Your task to perform on an android device: Do I have any events today? Image 0: 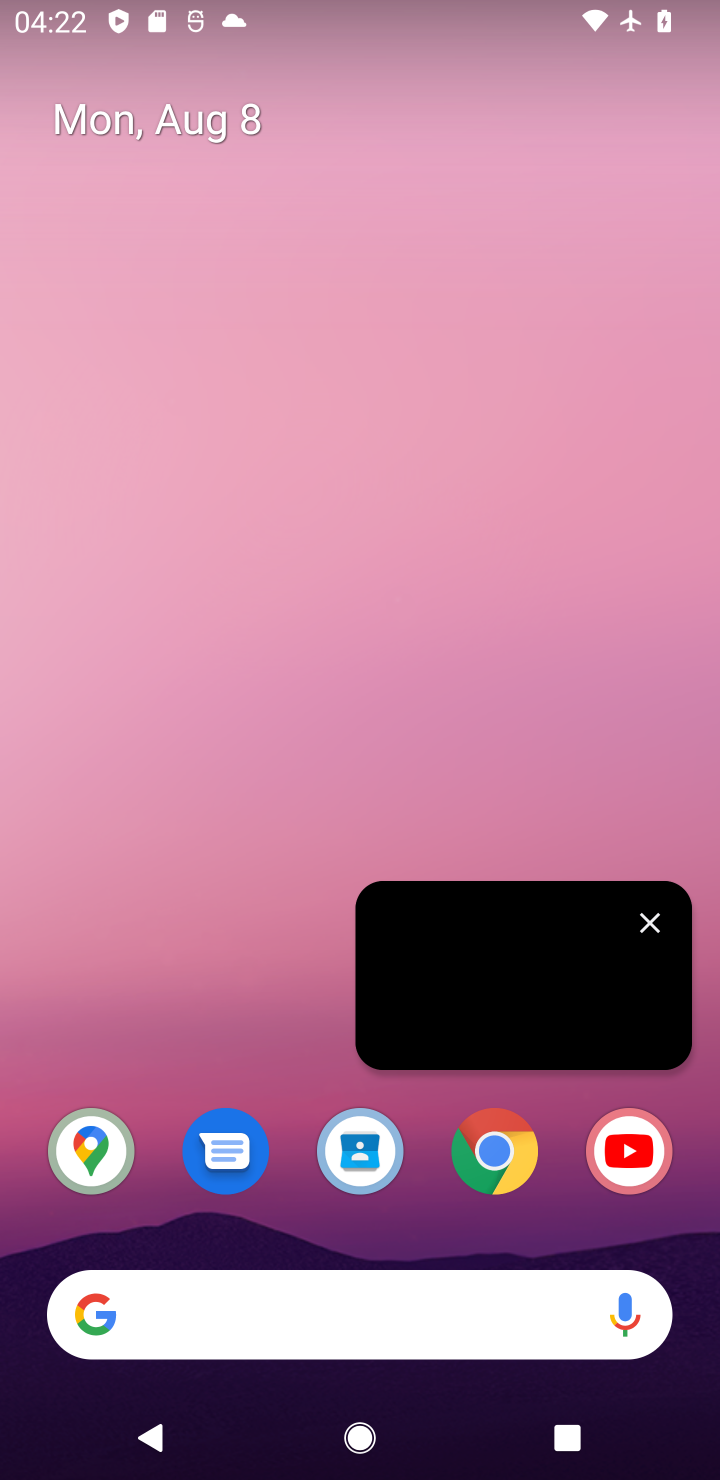
Step 0: click (658, 925)
Your task to perform on an android device: Do I have any events today? Image 1: 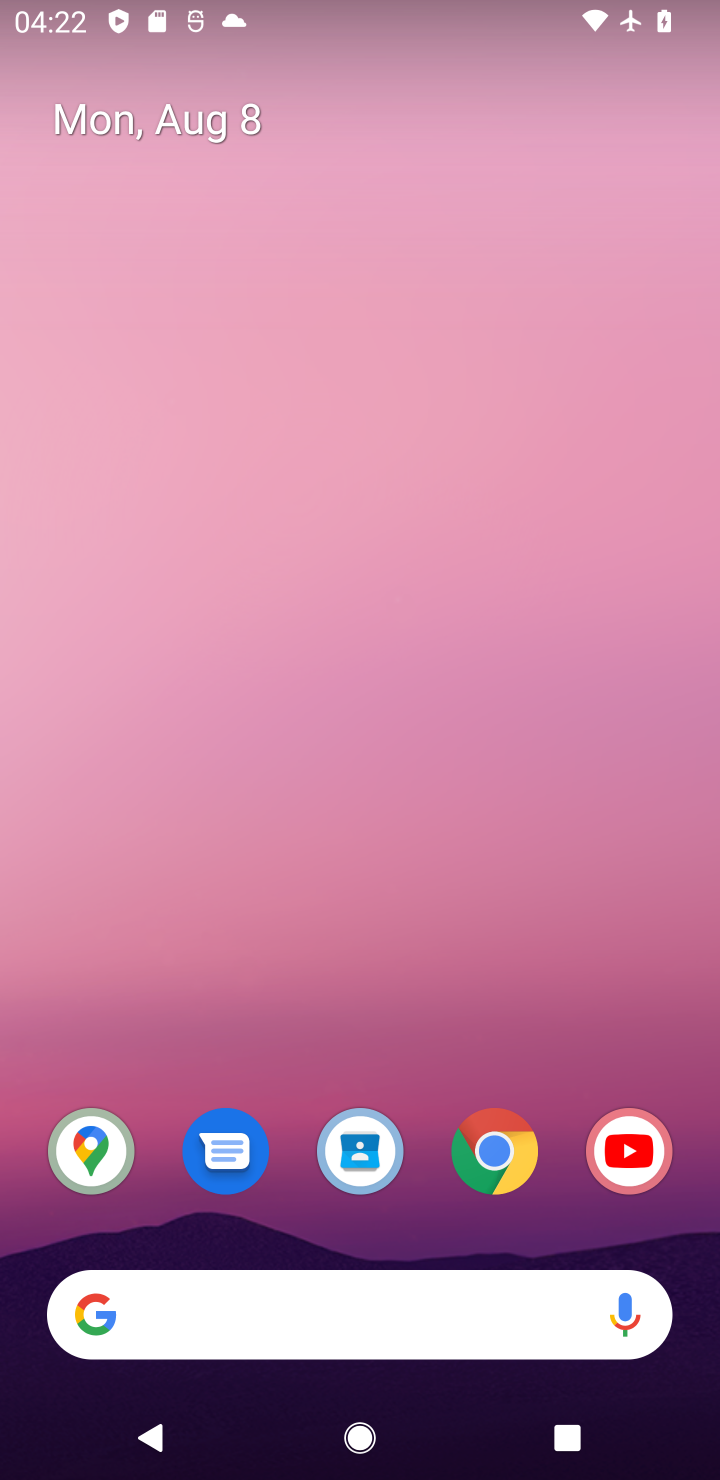
Step 1: drag from (342, 946) to (266, 228)
Your task to perform on an android device: Do I have any events today? Image 2: 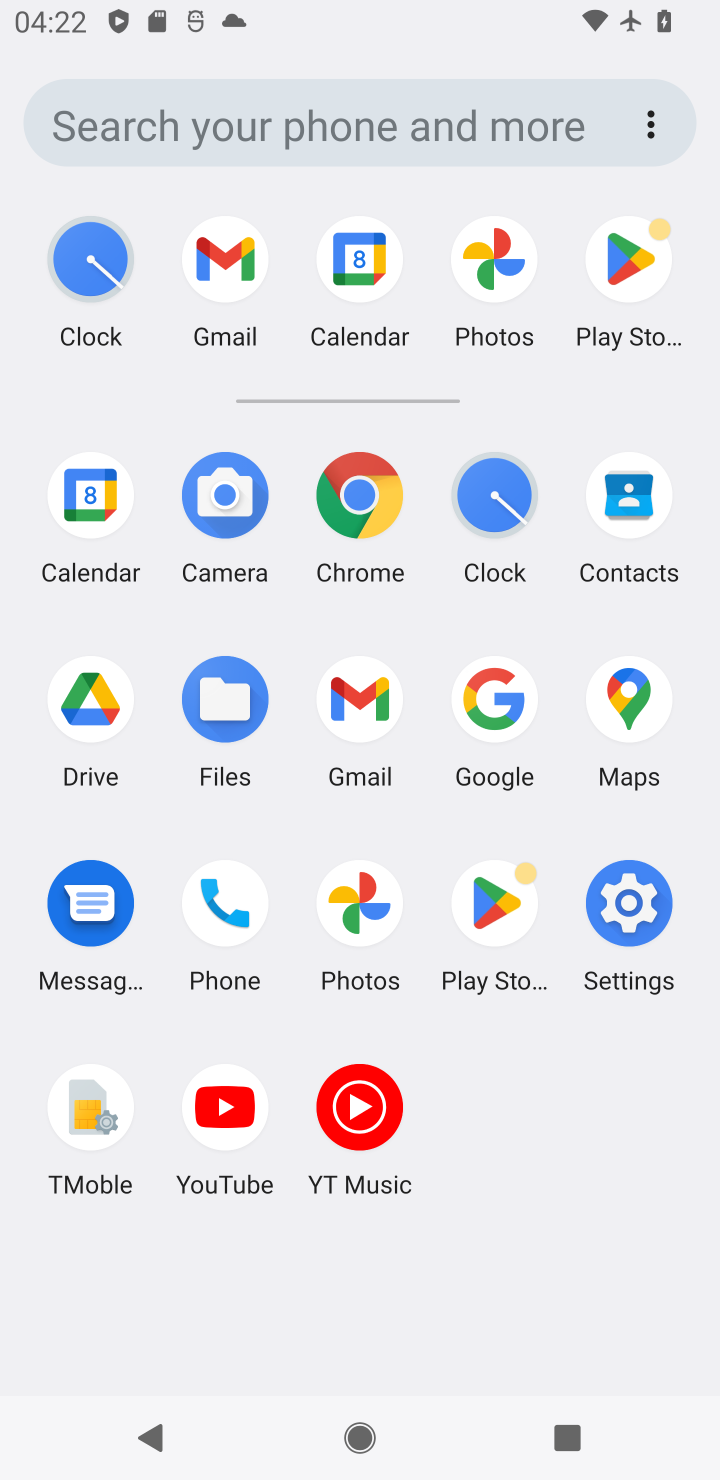
Step 2: click (83, 520)
Your task to perform on an android device: Do I have any events today? Image 3: 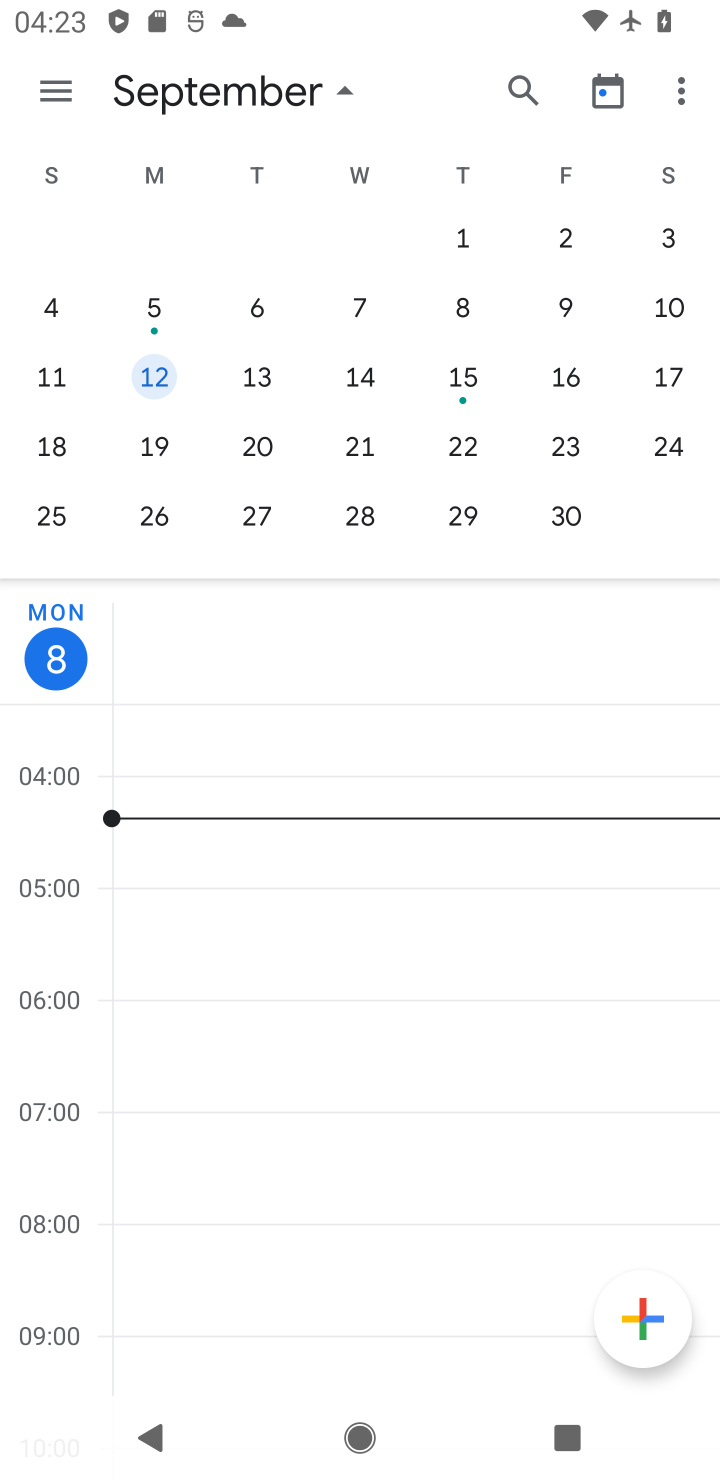
Step 3: drag from (87, 298) to (630, 285)
Your task to perform on an android device: Do I have any events today? Image 4: 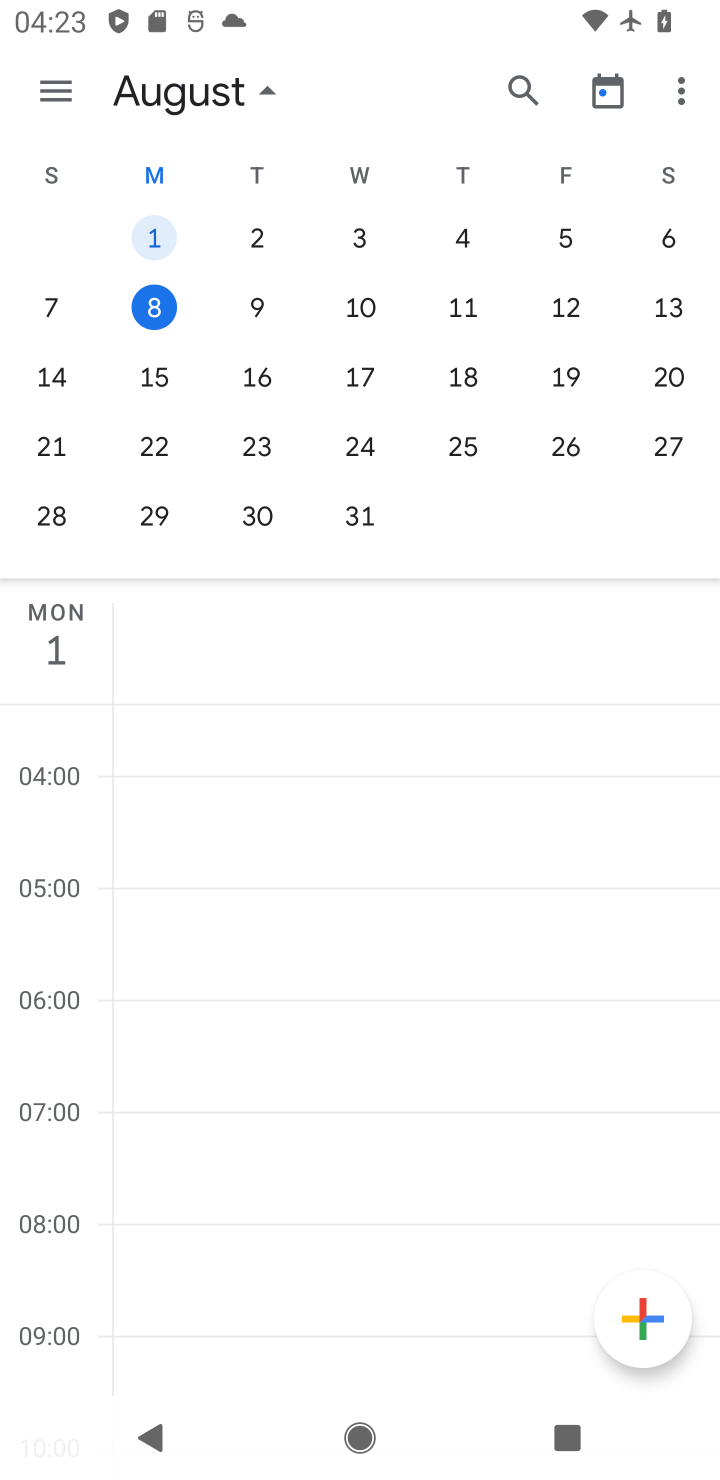
Step 4: click (154, 305)
Your task to perform on an android device: Do I have any events today? Image 5: 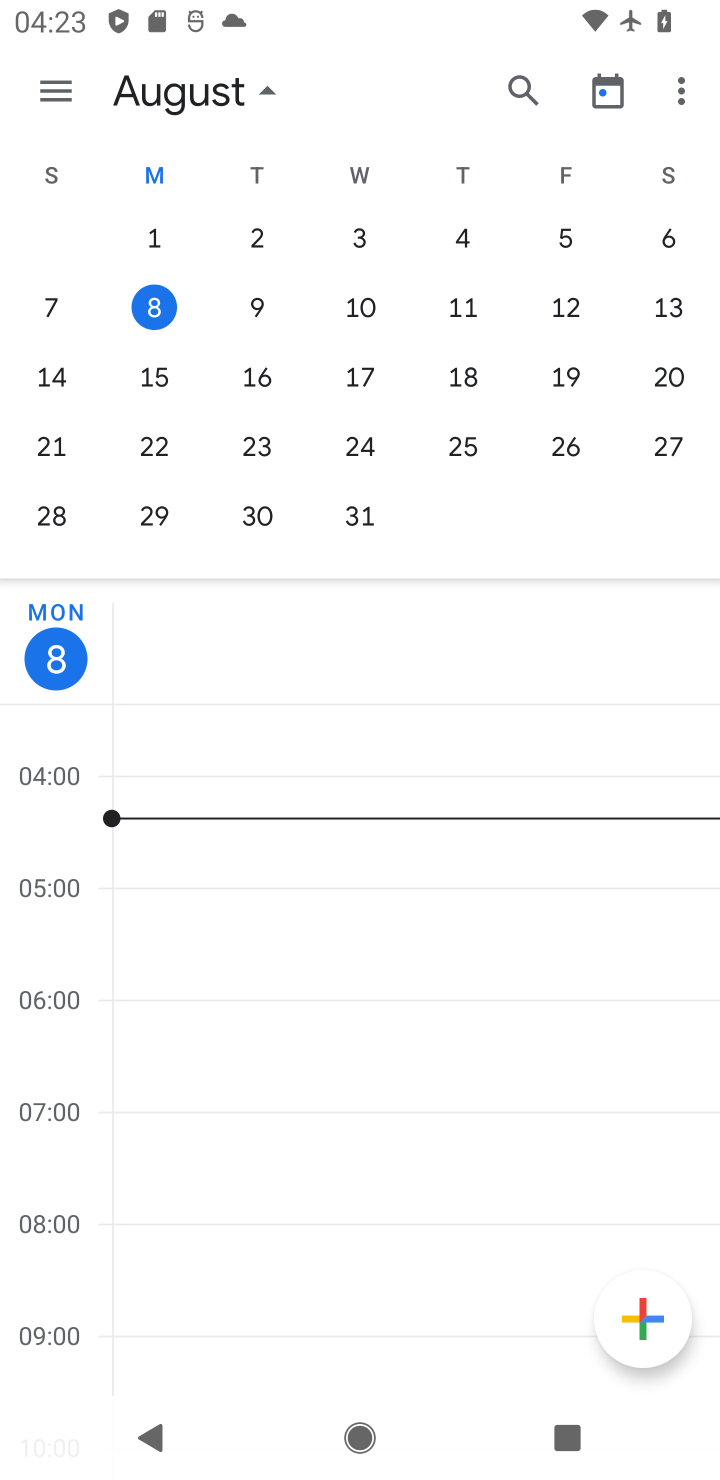
Step 5: task complete